Your task to perform on an android device: Open calendar and show me the third week of next month Image 0: 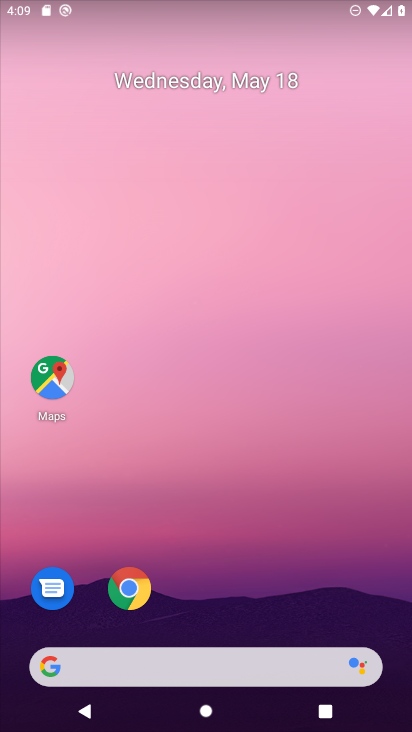
Step 0: drag from (296, 583) to (284, 209)
Your task to perform on an android device: Open calendar and show me the third week of next month Image 1: 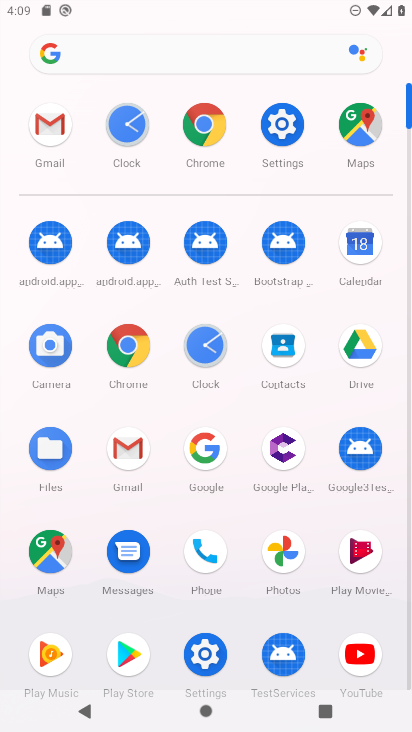
Step 1: click (372, 263)
Your task to perform on an android device: Open calendar and show me the third week of next month Image 2: 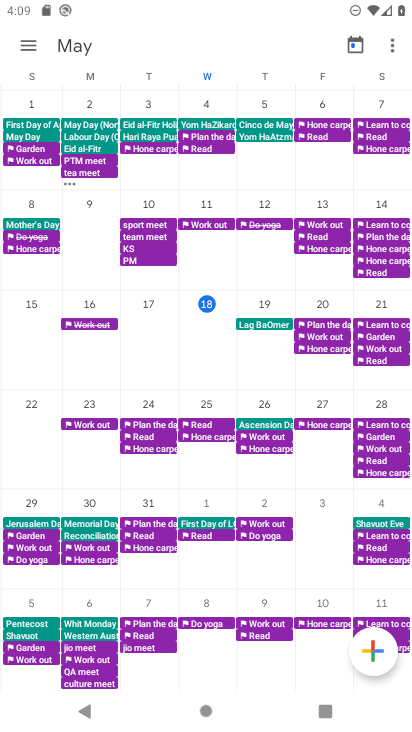
Step 2: click (41, 46)
Your task to perform on an android device: Open calendar and show me the third week of next month Image 3: 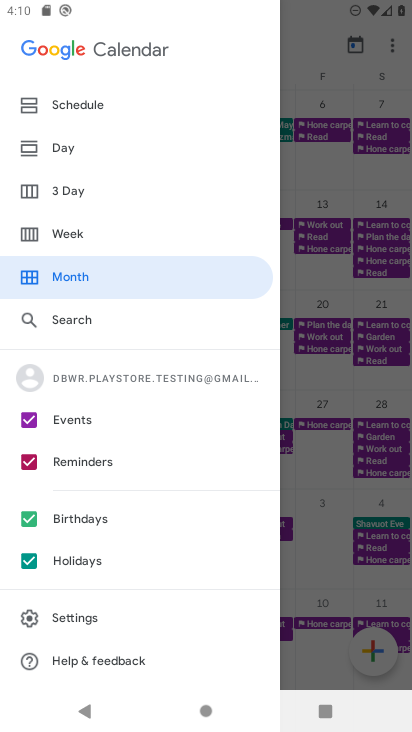
Step 3: click (33, 102)
Your task to perform on an android device: Open calendar and show me the third week of next month Image 4: 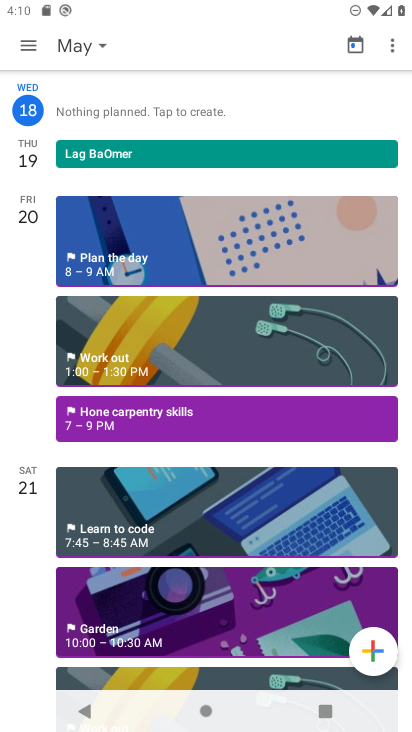
Step 4: click (116, 51)
Your task to perform on an android device: Open calendar and show me the third week of next month Image 5: 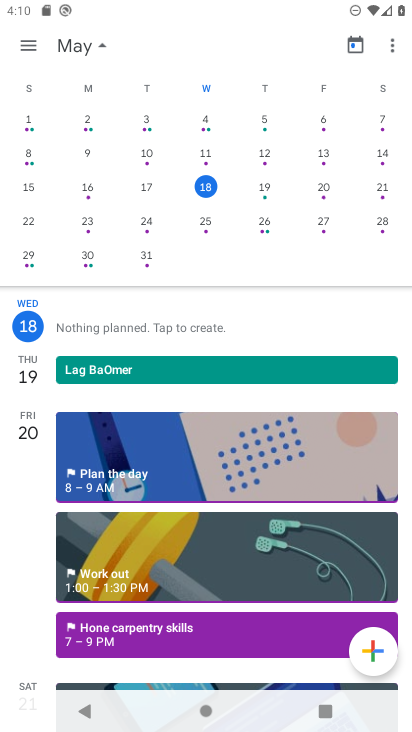
Step 5: drag from (337, 226) to (7, 173)
Your task to perform on an android device: Open calendar and show me the third week of next month Image 6: 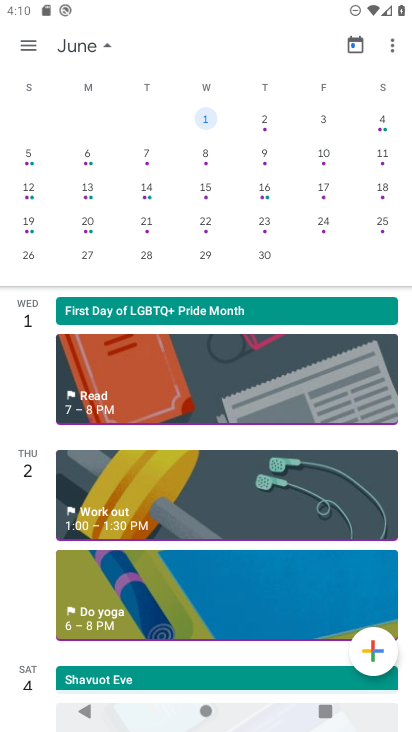
Step 6: drag from (382, 185) to (5, 185)
Your task to perform on an android device: Open calendar and show me the third week of next month Image 7: 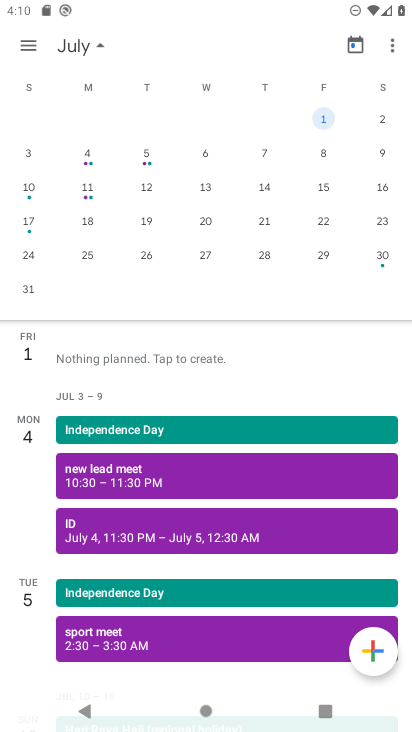
Step 7: drag from (25, 157) to (366, 213)
Your task to perform on an android device: Open calendar and show me the third week of next month Image 8: 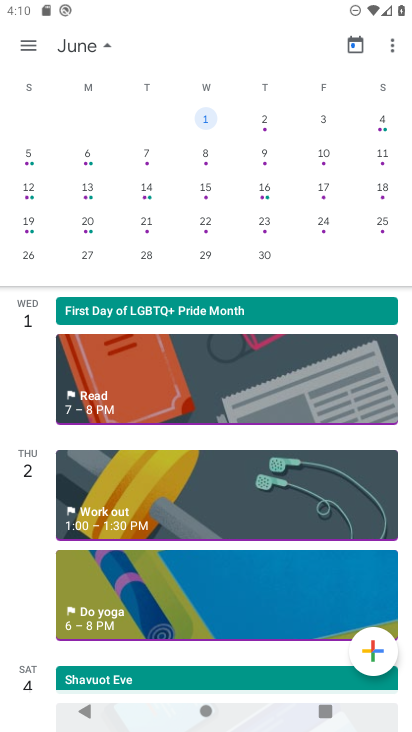
Step 8: click (27, 45)
Your task to perform on an android device: Open calendar and show me the third week of next month Image 9: 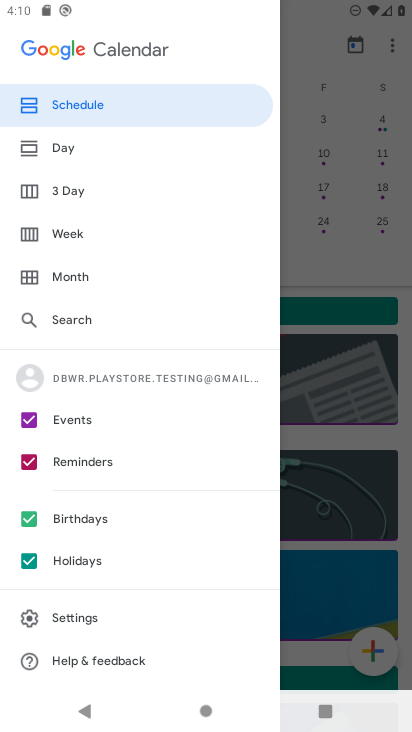
Step 9: click (94, 245)
Your task to perform on an android device: Open calendar and show me the third week of next month Image 10: 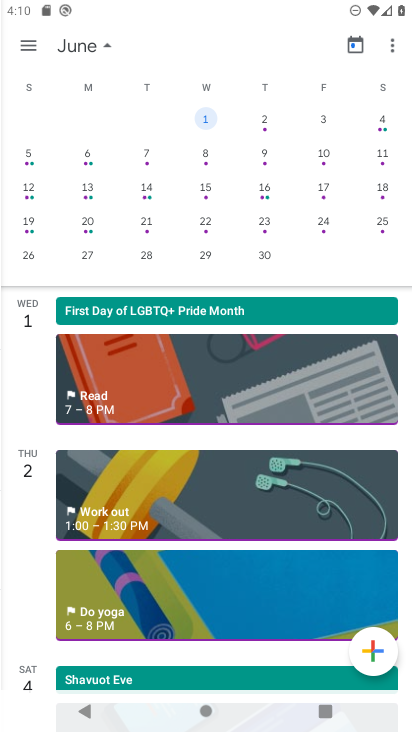
Step 10: task complete